Your task to perform on an android device: turn notification dots off Image 0: 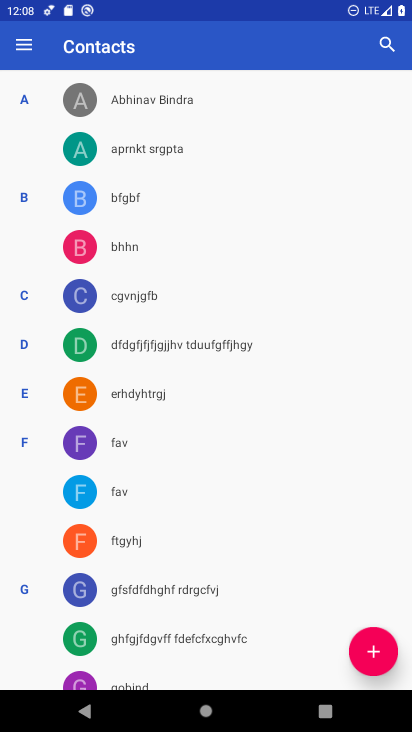
Step 0: press home button
Your task to perform on an android device: turn notification dots off Image 1: 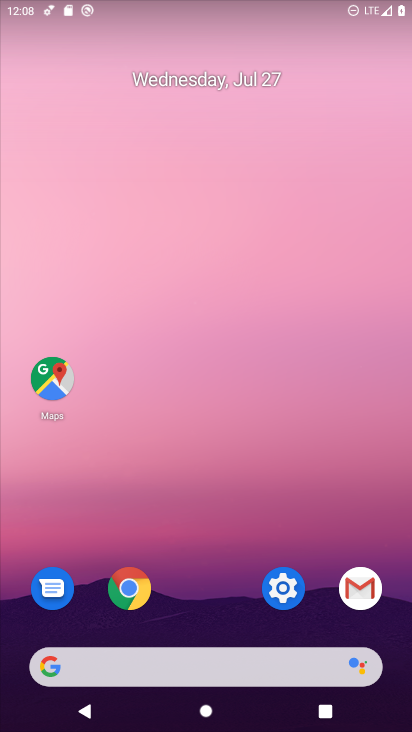
Step 1: click (290, 574)
Your task to perform on an android device: turn notification dots off Image 2: 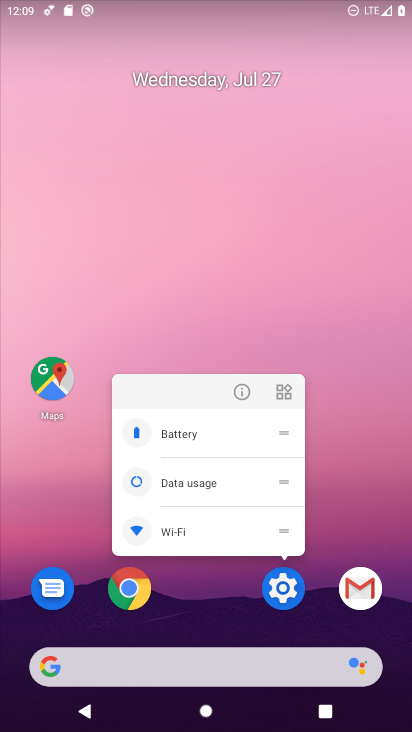
Step 2: click (296, 588)
Your task to perform on an android device: turn notification dots off Image 3: 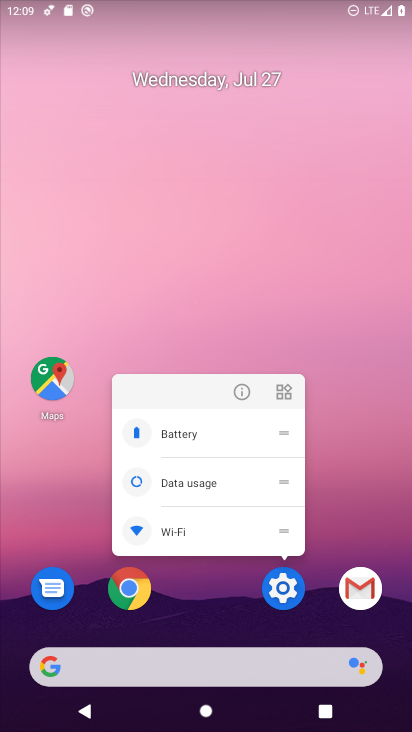
Step 3: click (289, 589)
Your task to perform on an android device: turn notification dots off Image 4: 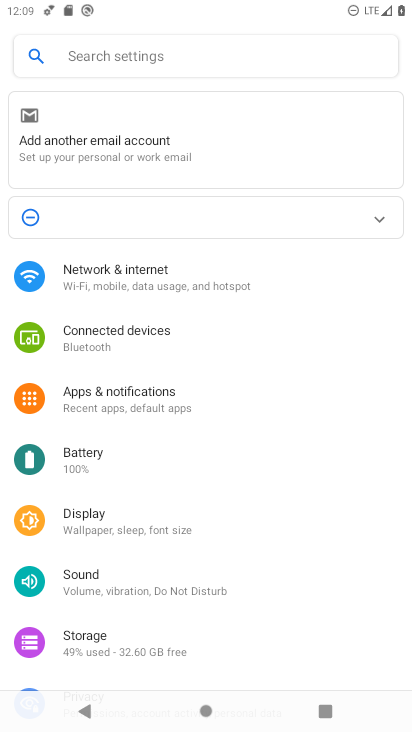
Step 4: click (135, 55)
Your task to perform on an android device: turn notification dots off Image 5: 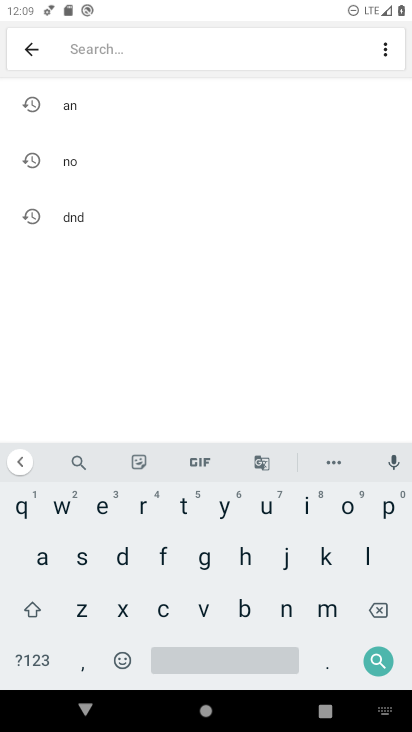
Step 5: click (283, 617)
Your task to perform on an android device: turn notification dots off Image 6: 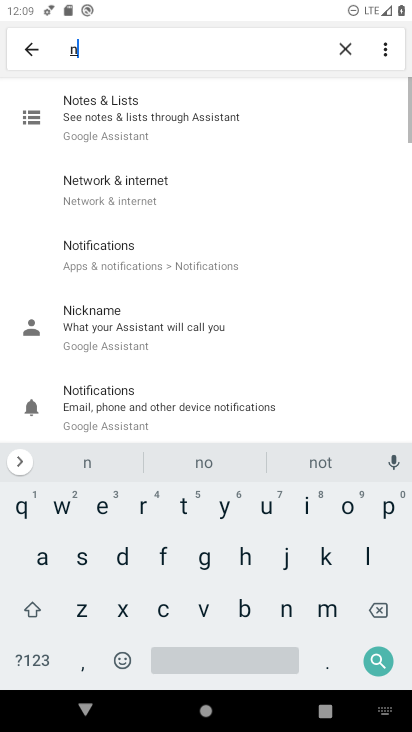
Step 6: click (346, 498)
Your task to perform on an android device: turn notification dots off Image 7: 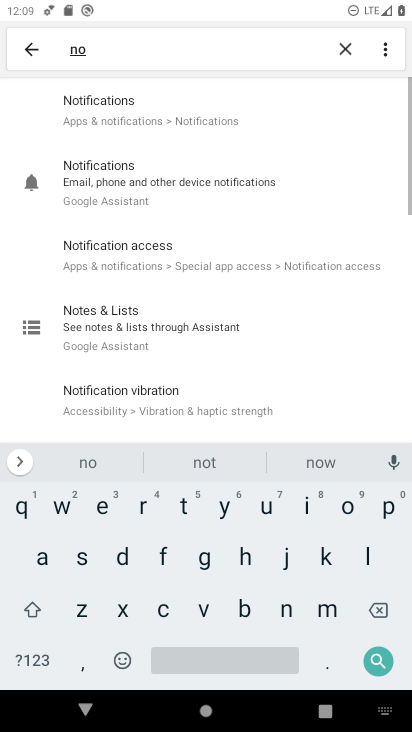
Step 7: click (101, 104)
Your task to perform on an android device: turn notification dots off Image 8: 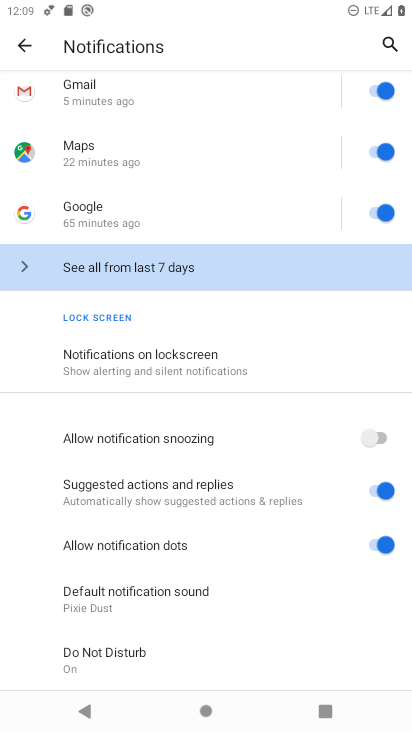
Step 8: drag from (104, 351) to (153, 188)
Your task to perform on an android device: turn notification dots off Image 9: 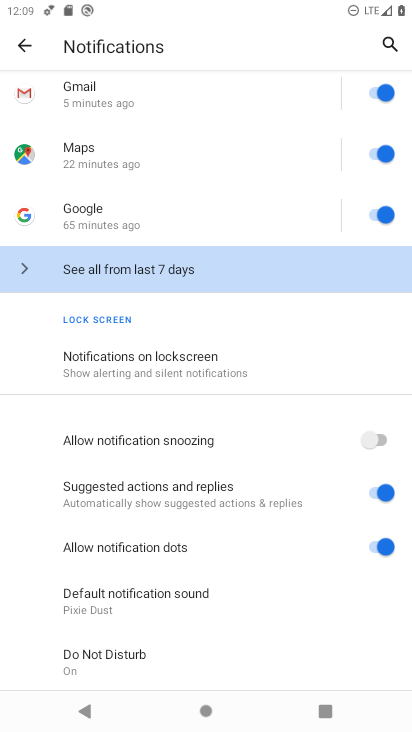
Step 9: click (313, 541)
Your task to perform on an android device: turn notification dots off Image 10: 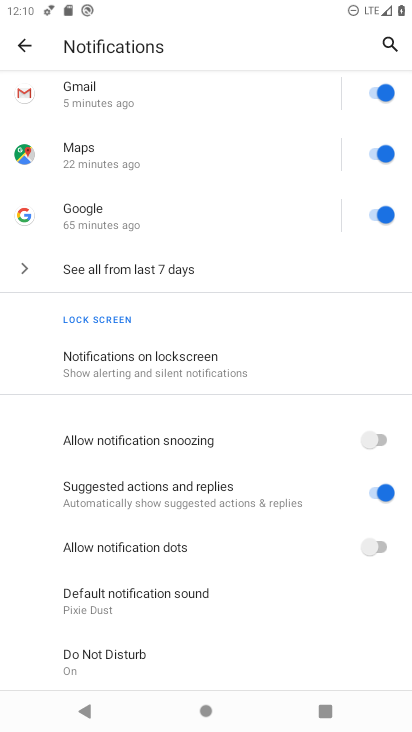
Step 10: task complete